Your task to perform on an android device: Is it going to rain today? Image 0: 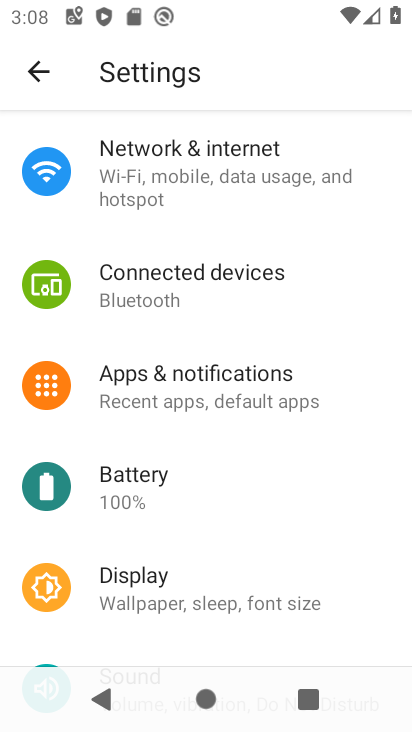
Step 0: press back button
Your task to perform on an android device: Is it going to rain today? Image 1: 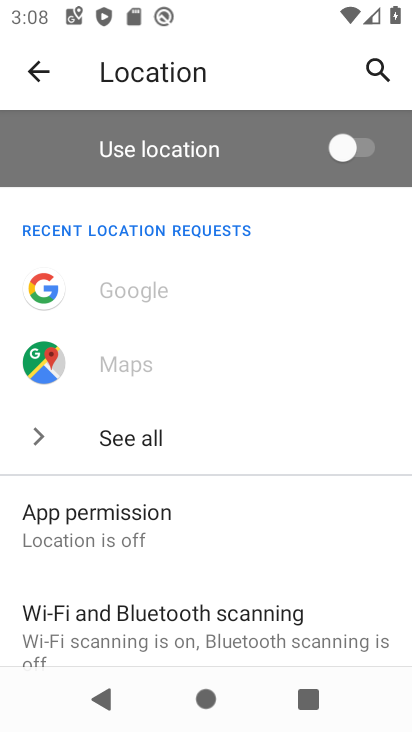
Step 1: press back button
Your task to perform on an android device: Is it going to rain today? Image 2: 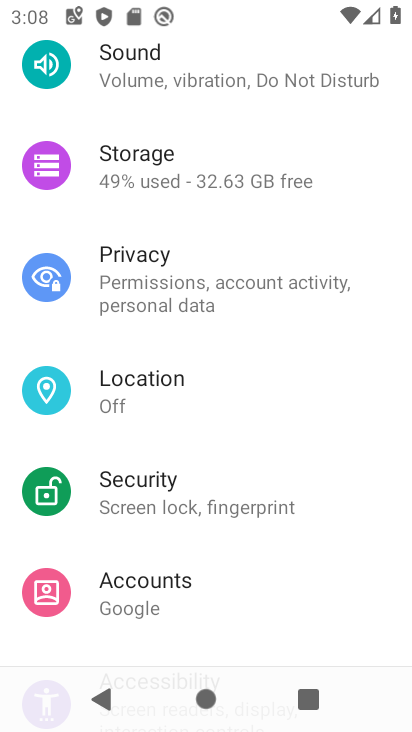
Step 2: press back button
Your task to perform on an android device: Is it going to rain today? Image 3: 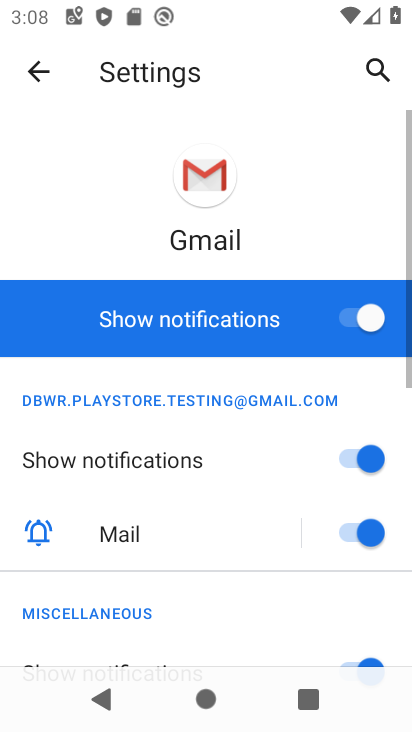
Step 3: press back button
Your task to perform on an android device: Is it going to rain today? Image 4: 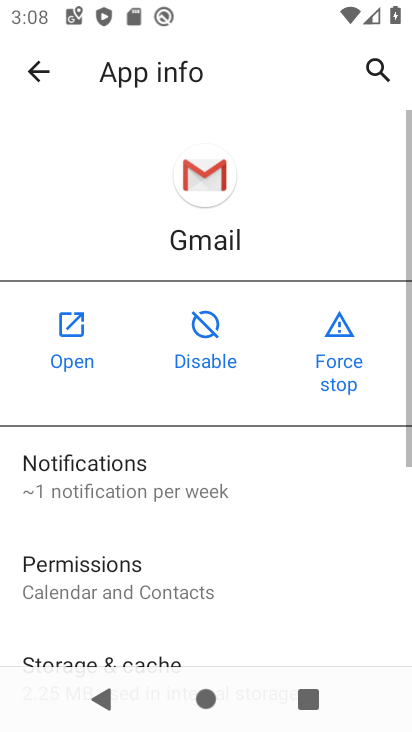
Step 4: press back button
Your task to perform on an android device: Is it going to rain today? Image 5: 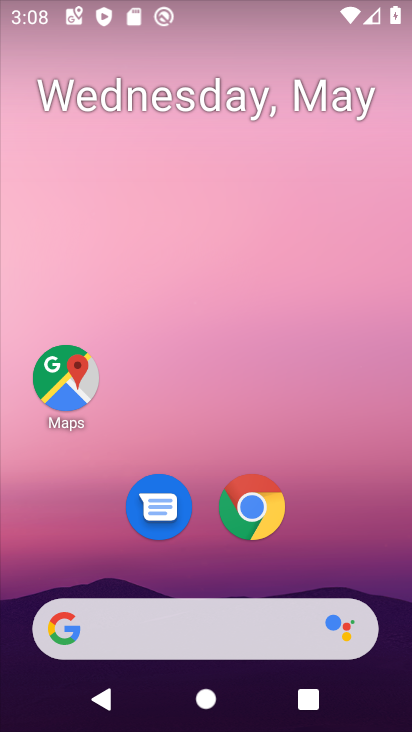
Step 5: click (162, 637)
Your task to perform on an android device: Is it going to rain today? Image 6: 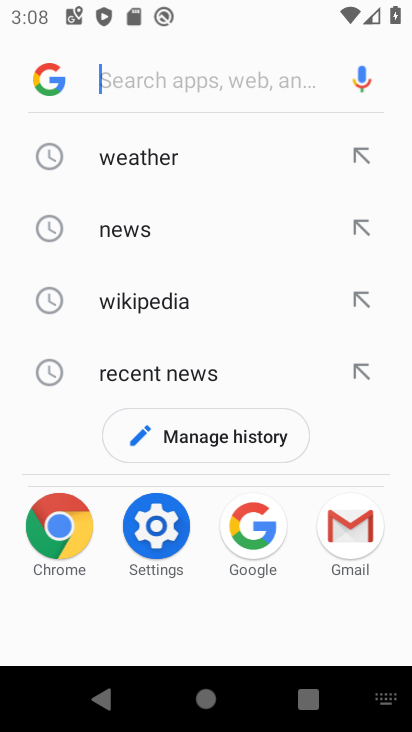
Step 6: click (145, 164)
Your task to perform on an android device: Is it going to rain today? Image 7: 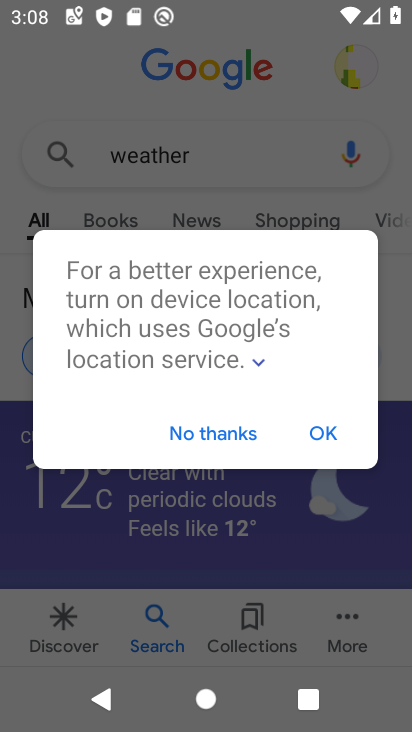
Step 7: click (311, 430)
Your task to perform on an android device: Is it going to rain today? Image 8: 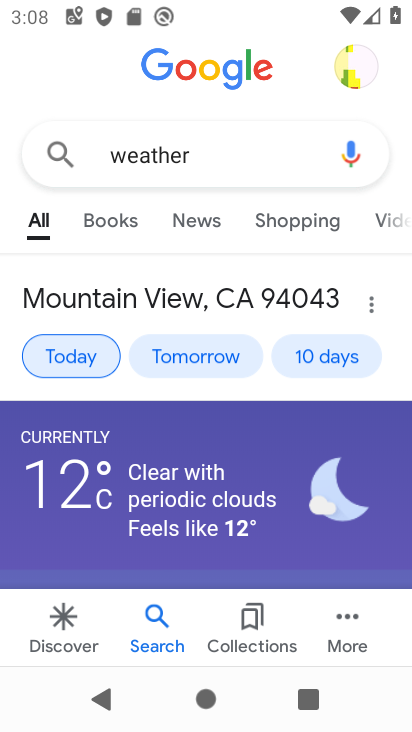
Step 8: task complete